Your task to perform on an android device: remove spam from my inbox in the gmail app Image 0: 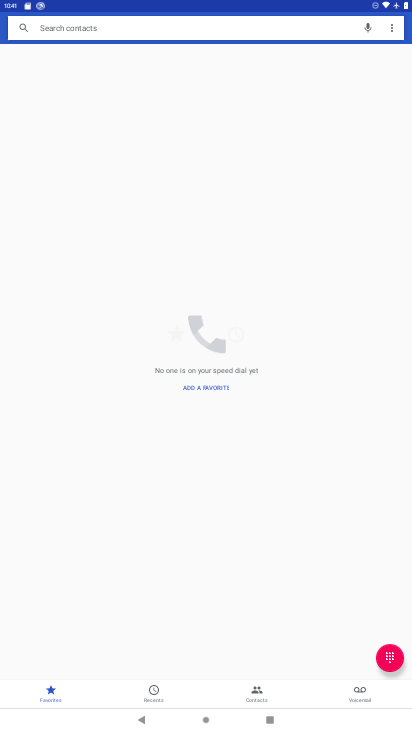
Step 0: press home button
Your task to perform on an android device: remove spam from my inbox in the gmail app Image 1: 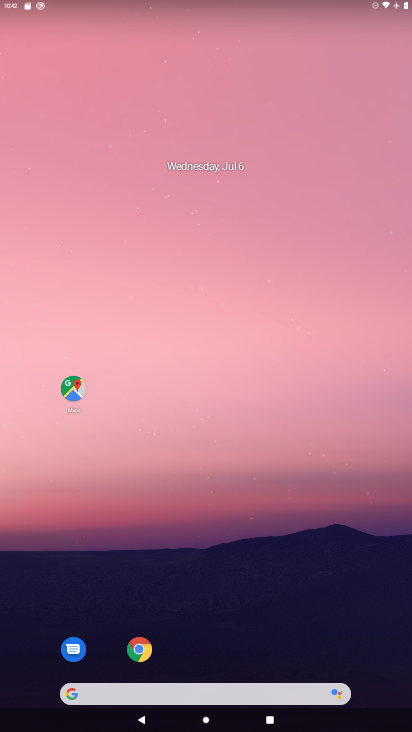
Step 1: drag from (363, 640) to (333, 127)
Your task to perform on an android device: remove spam from my inbox in the gmail app Image 2: 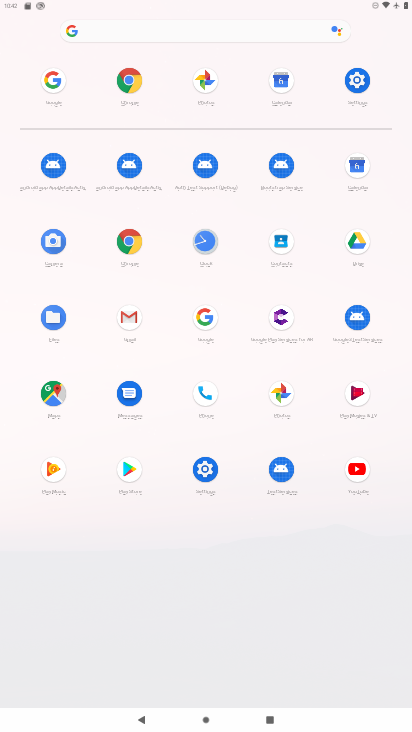
Step 2: click (128, 315)
Your task to perform on an android device: remove spam from my inbox in the gmail app Image 3: 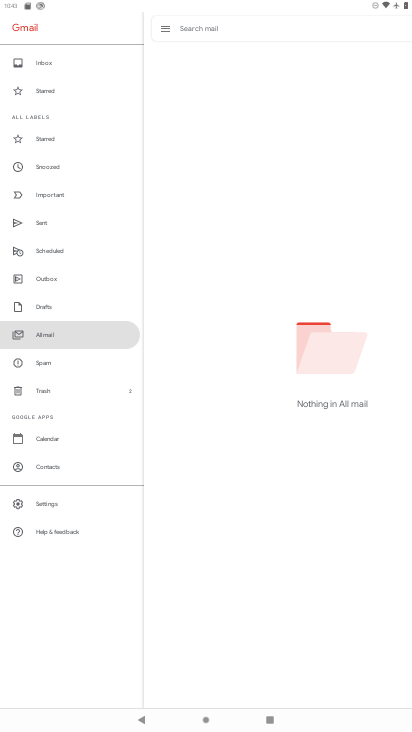
Step 3: click (39, 362)
Your task to perform on an android device: remove spam from my inbox in the gmail app Image 4: 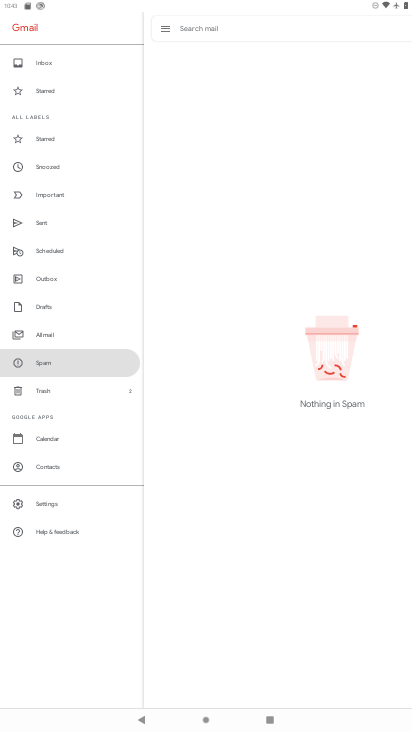
Step 4: task complete